Your task to perform on an android device: What time is it in New York? Image 0: 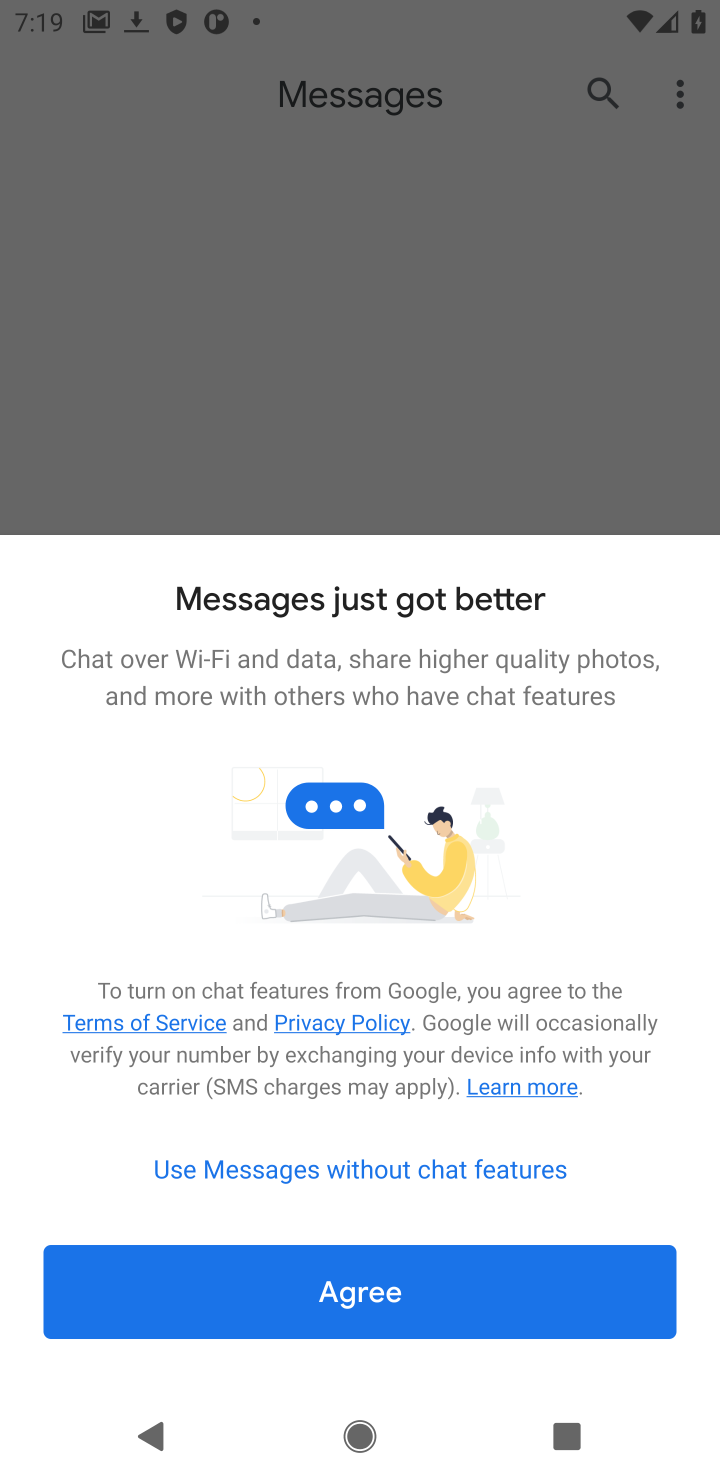
Step 0: press home button
Your task to perform on an android device: What time is it in New York? Image 1: 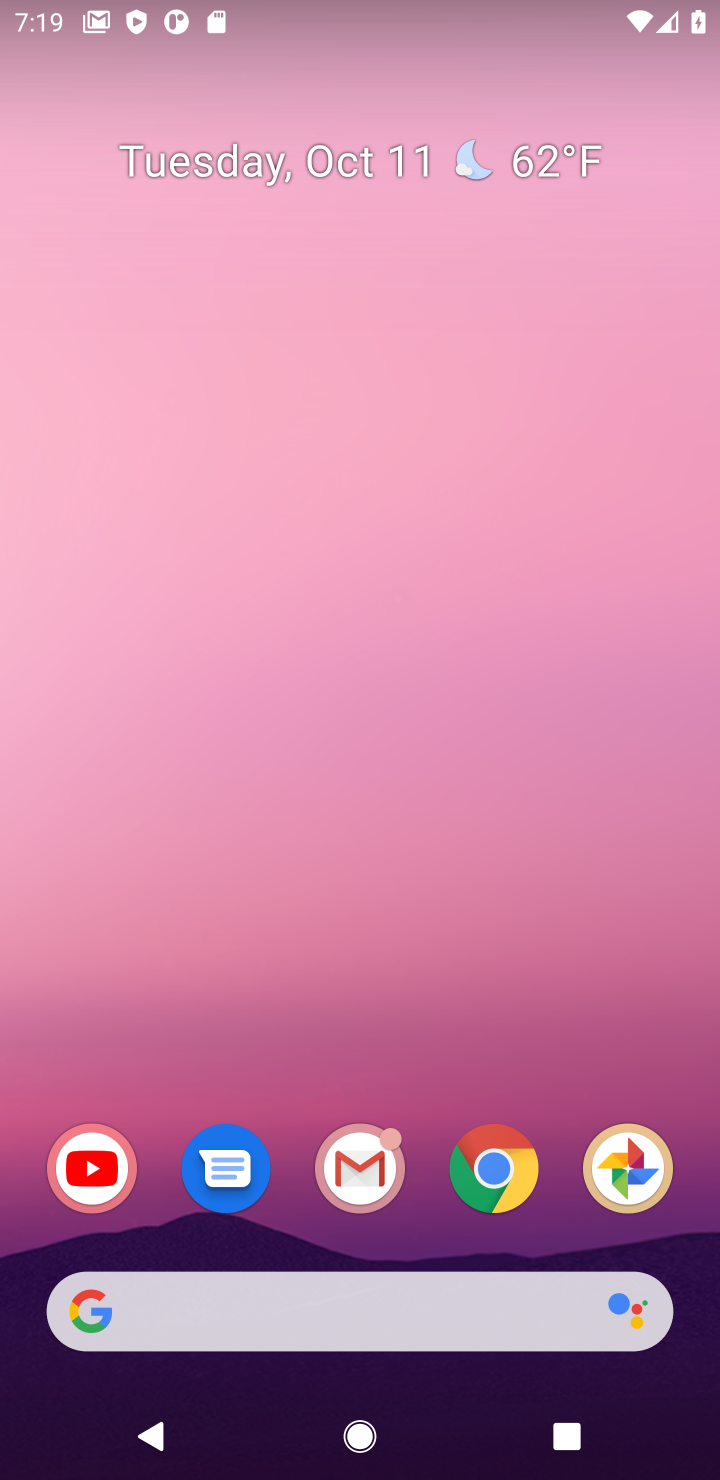
Step 1: click (504, 1161)
Your task to perform on an android device: What time is it in New York? Image 2: 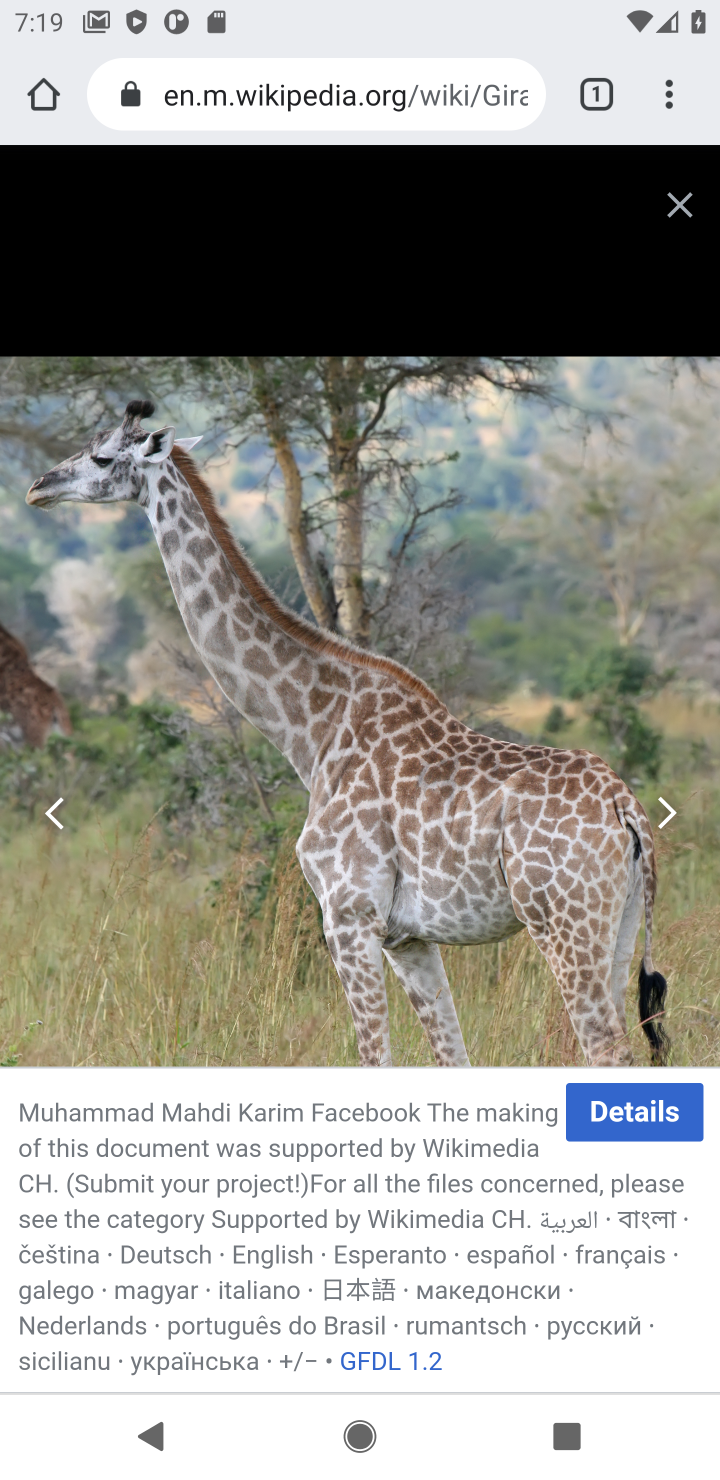
Step 2: click (223, 78)
Your task to perform on an android device: What time is it in New York? Image 3: 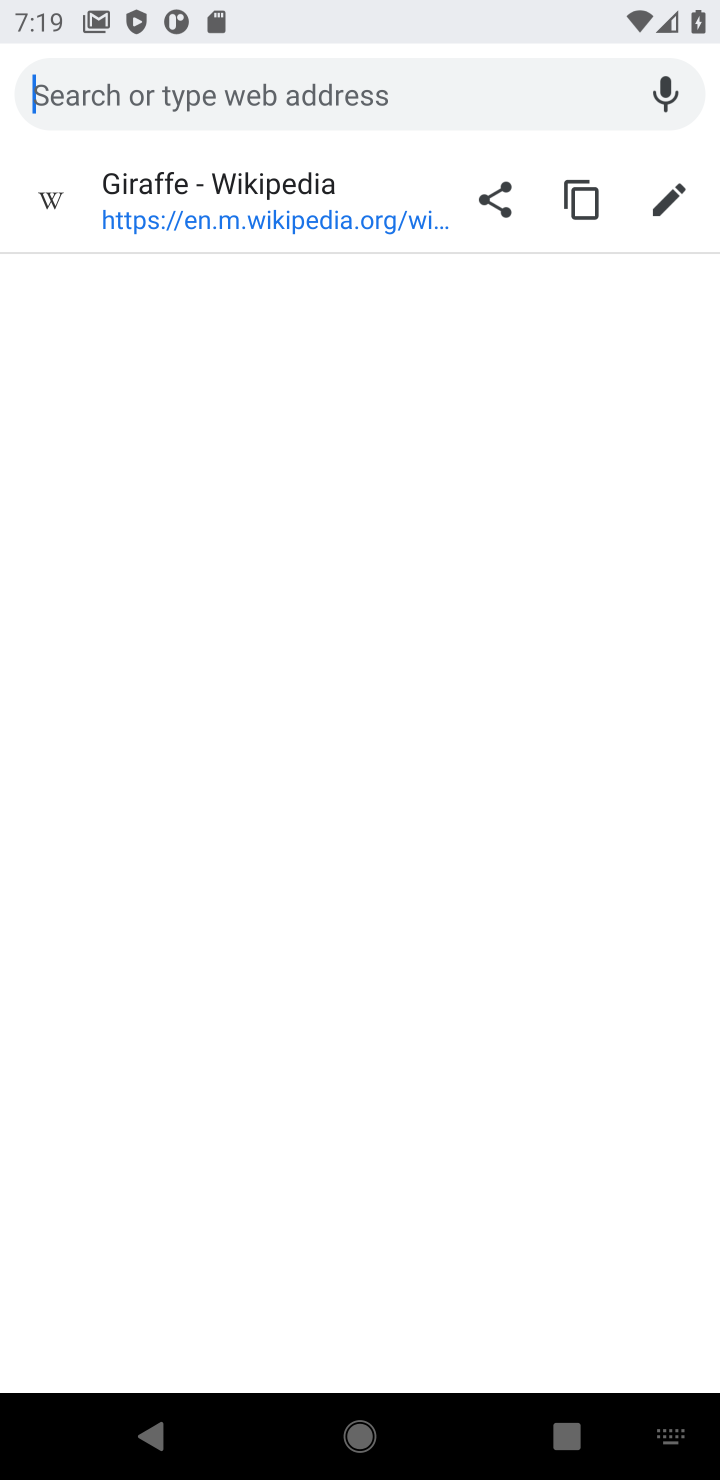
Step 3: type "whats time is it new york"
Your task to perform on an android device: What time is it in New York? Image 4: 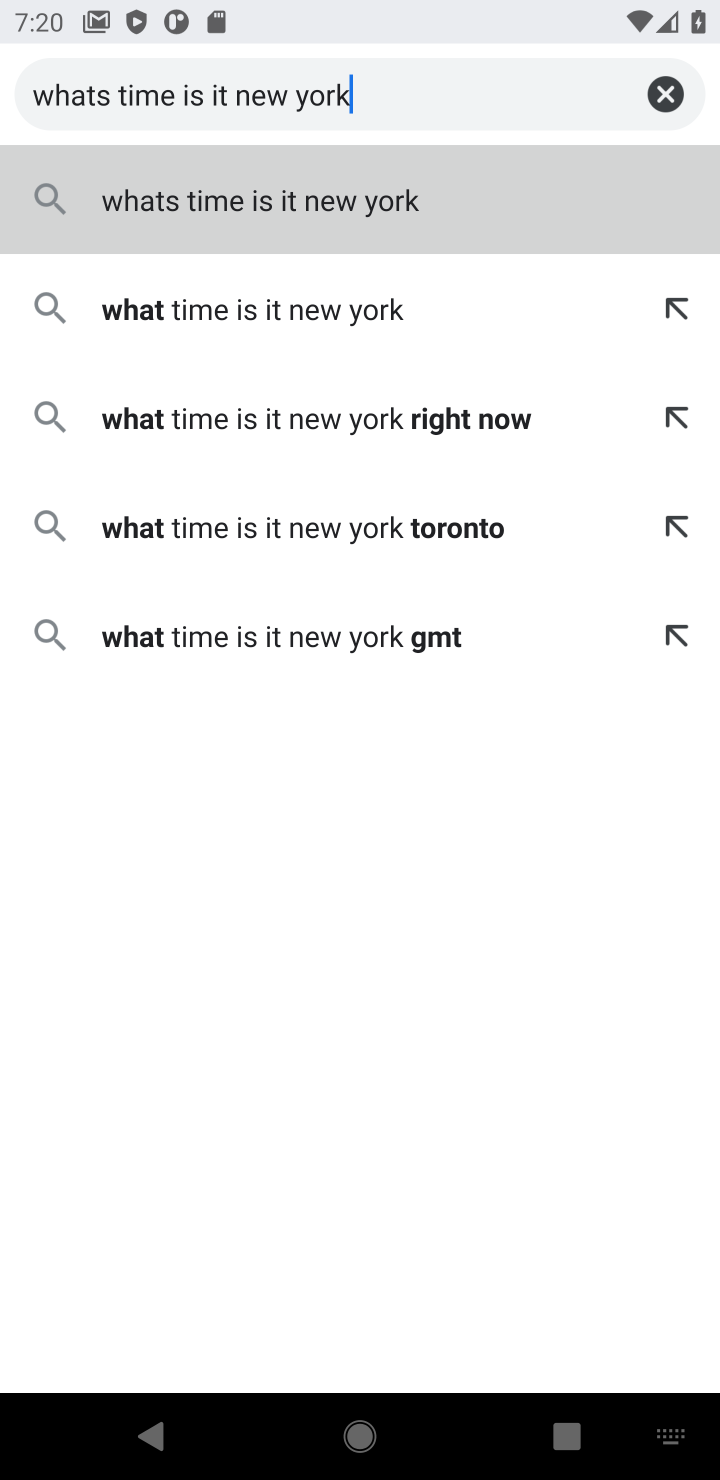
Step 4: click (358, 300)
Your task to perform on an android device: What time is it in New York? Image 5: 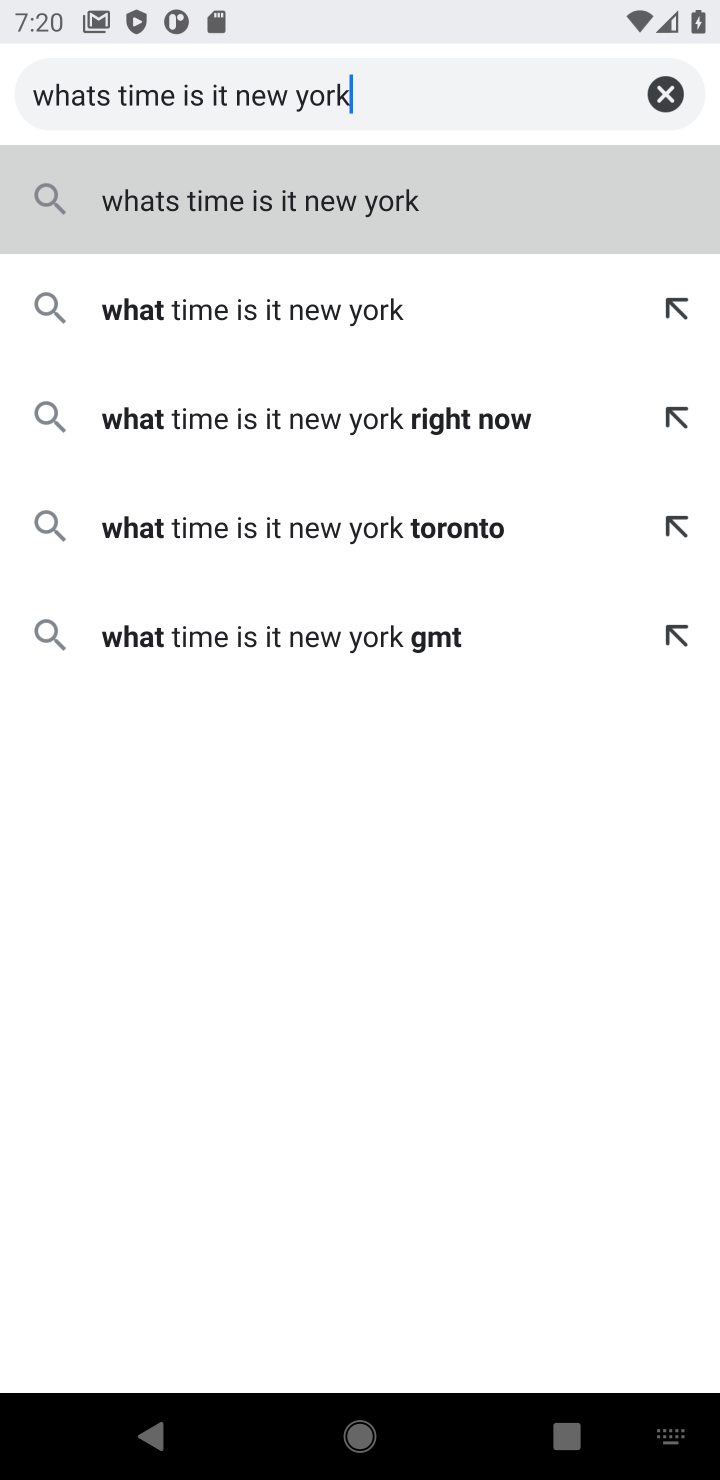
Step 5: click (376, 313)
Your task to perform on an android device: What time is it in New York? Image 6: 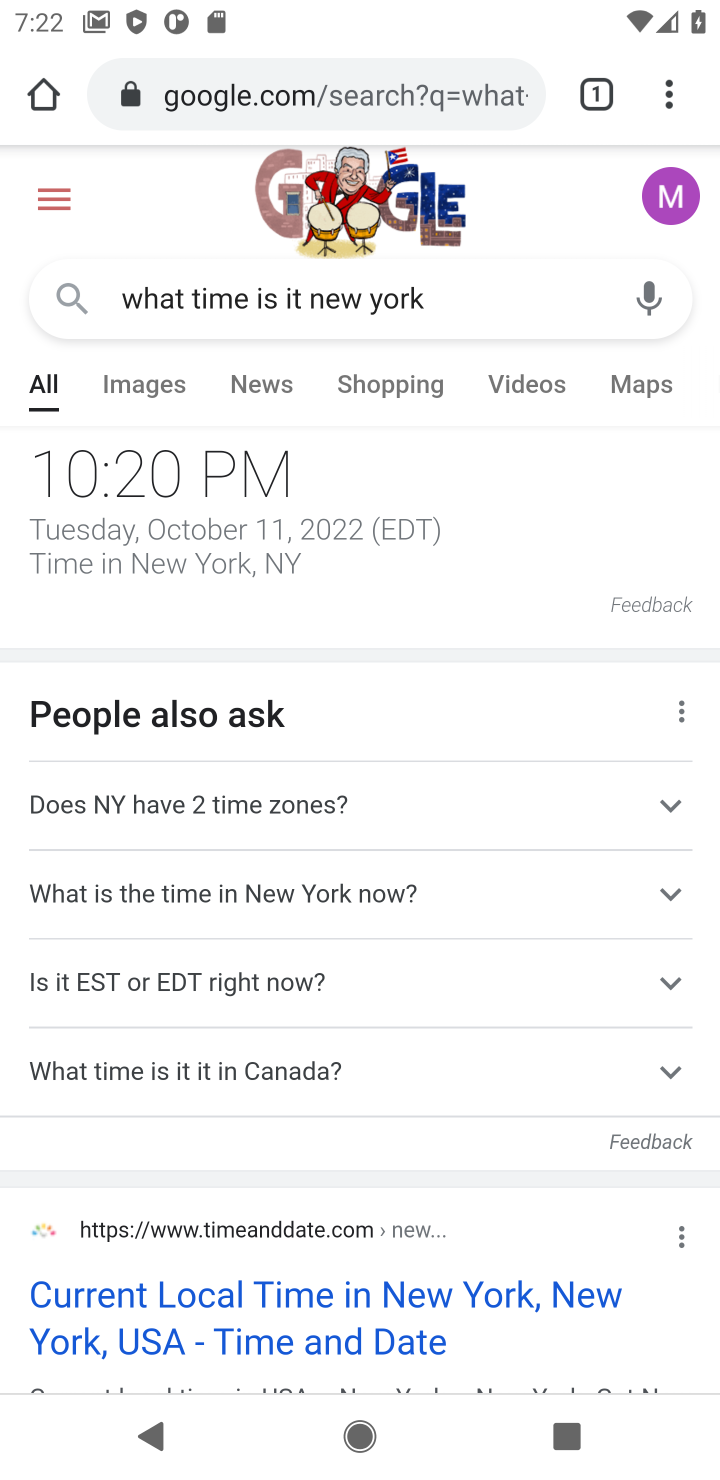
Step 6: task complete